Your task to perform on an android device: add a contact Image 0: 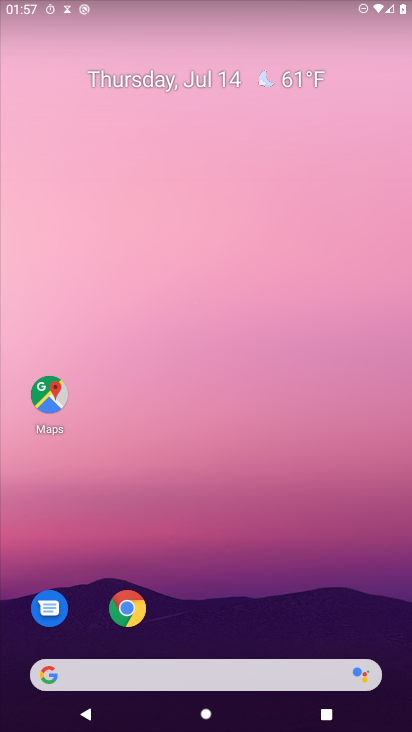
Step 0: press home button
Your task to perform on an android device: add a contact Image 1: 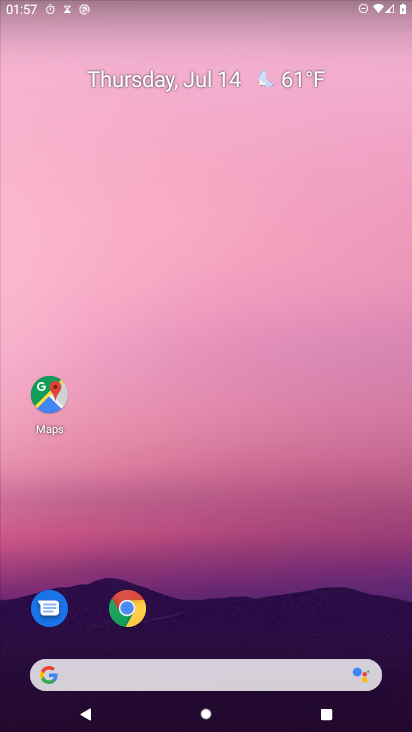
Step 1: drag from (260, 55) to (270, 3)
Your task to perform on an android device: add a contact Image 2: 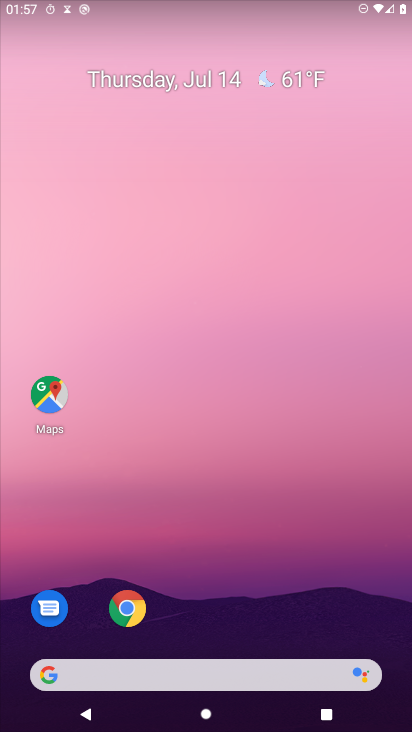
Step 2: drag from (258, 467) to (129, 727)
Your task to perform on an android device: add a contact Image 3: 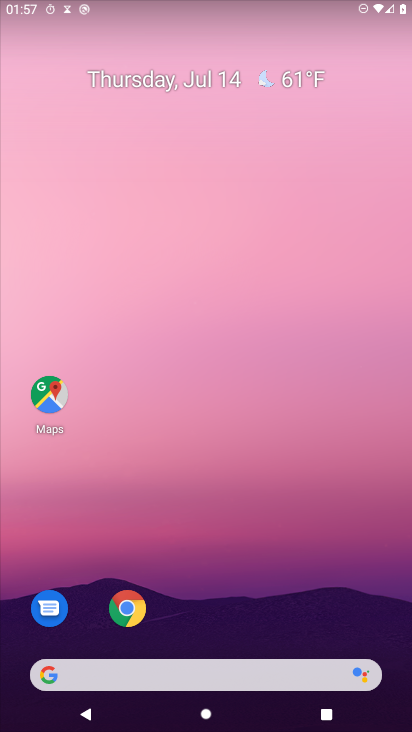
Step 3: drag from (259, 556) to (213, 99)
Your task to perform on an android device: add a contact Image 4: 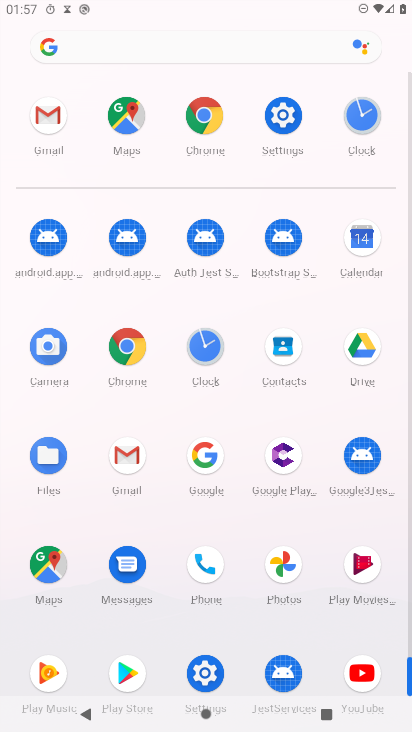
Step 4: click (279, 340)
Your task to perform on an android device: add a contact Image 5: 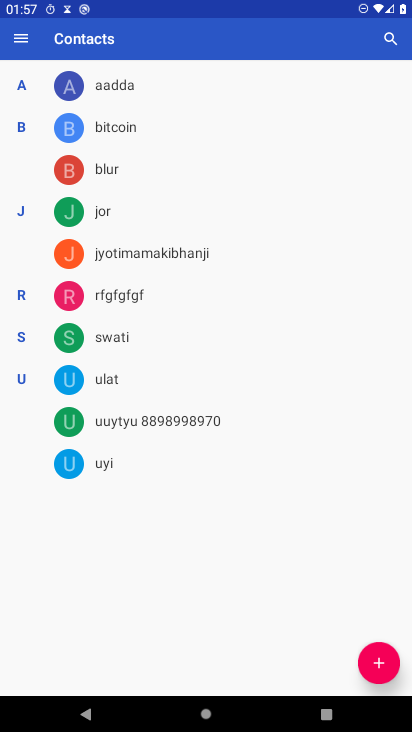
Step 5: click (389, 664)
Your task to perform on an android device: add a contact Image 6: 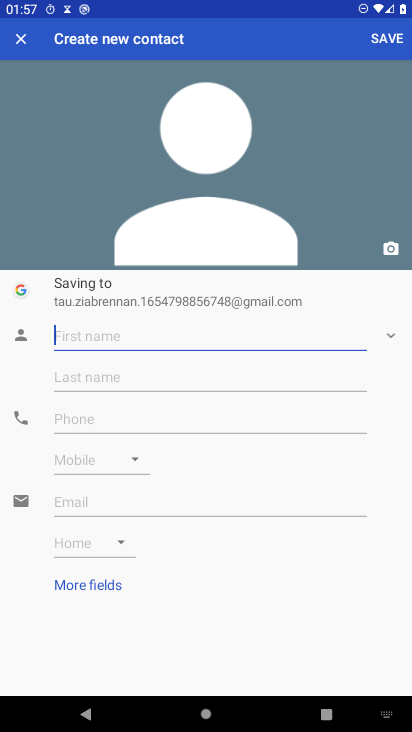
Step 6: type "dggdddgggggg"
Your task to perform on an android device: add a contact Image 7: 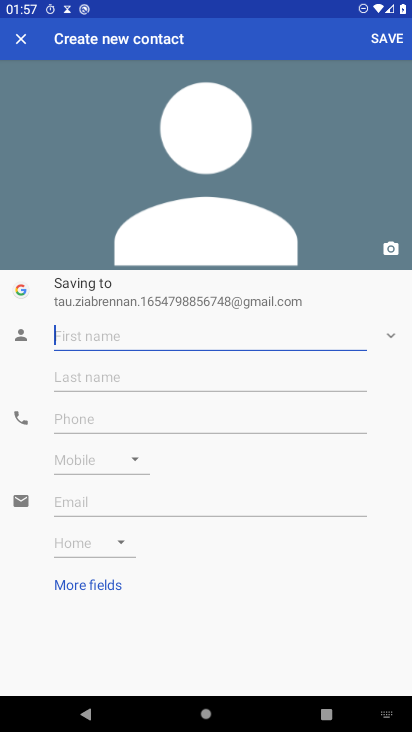
Step 7: click (81, 333)
Your task to perform on an android device: add a contact Image 8: 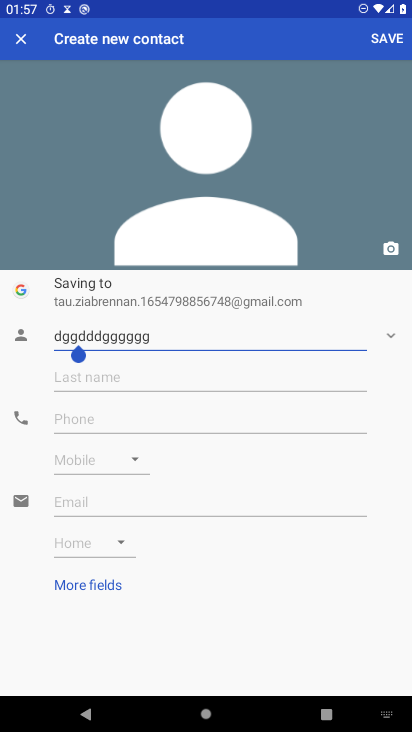
Step 8: click (101, 421)
Your task to perform on an android device: add a contact Image 9: 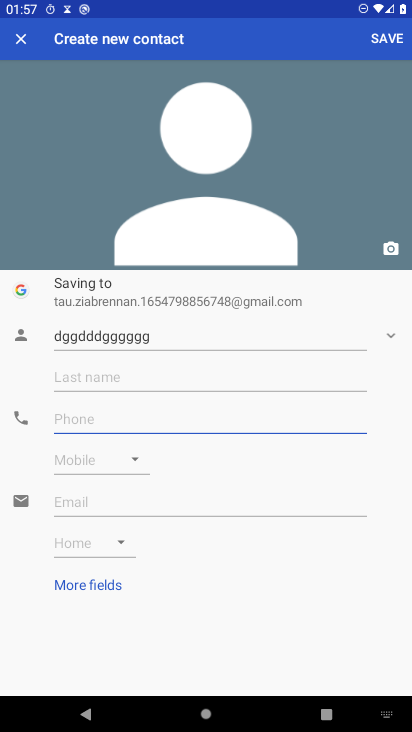
Step 9: type "3444555666444"
Your task to perform on an android device: add a contact Image 10: 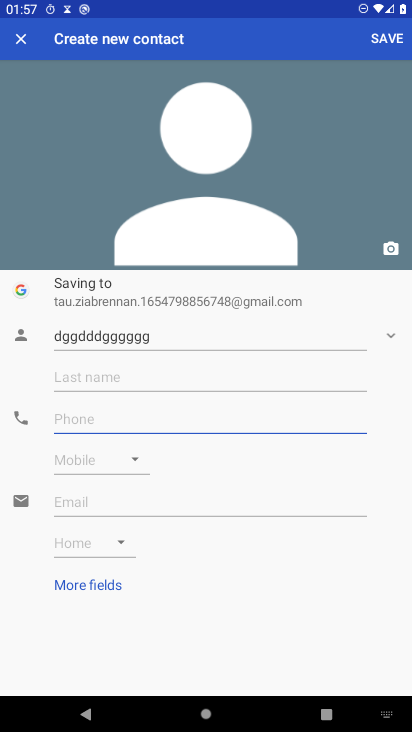
Step 10: click (74, 411)
Your task to perform on an android device: add a contact Image 11: 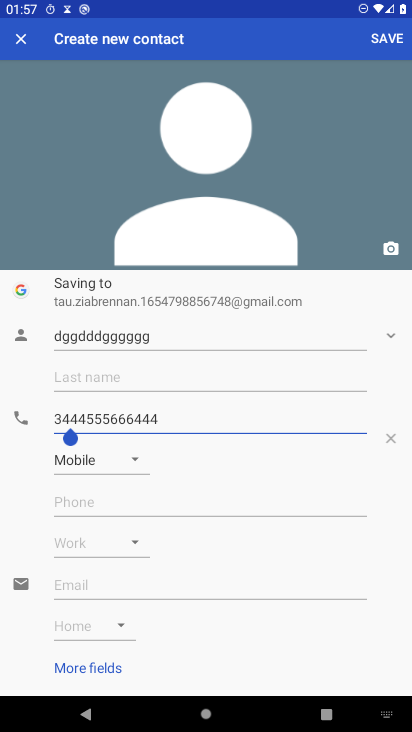
Step 11: click (386, 33)
Your task to perform on an android device: add a contact Image 12: 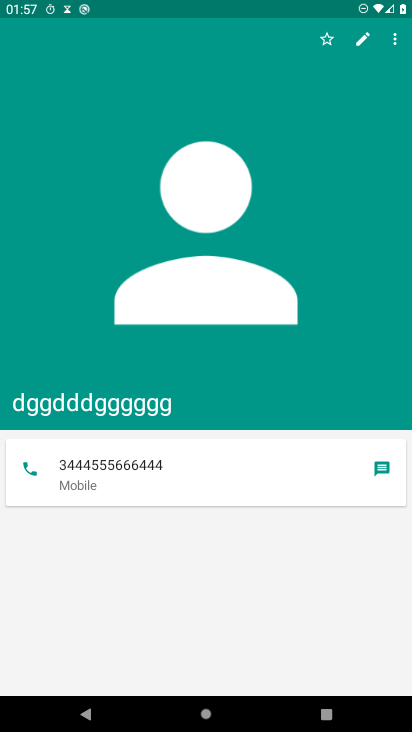
Step 12: task complete